Your task to perform on an android device: delete browsing data in the chrome app Image 0: 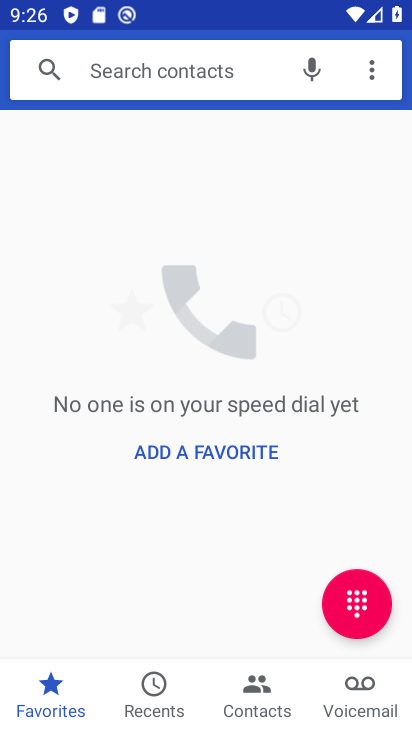
Step 0: press home button
Your task to perform on an android device: delete browsing data in the chrome app Image 1: 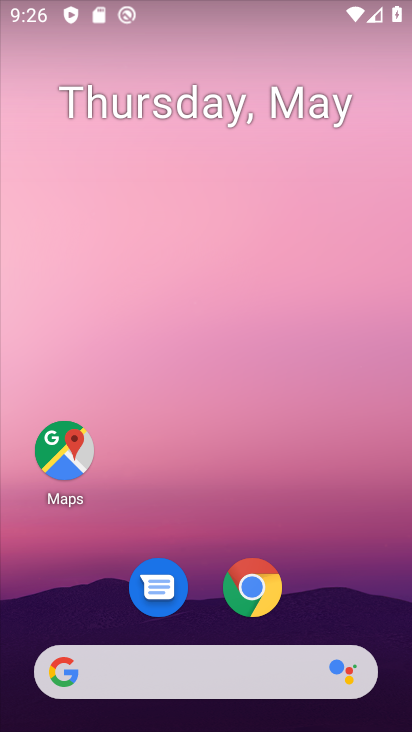
Step 1: click (261, 600)
Your task to perform on an android device: delete browsing data in the chrome app Image 2: 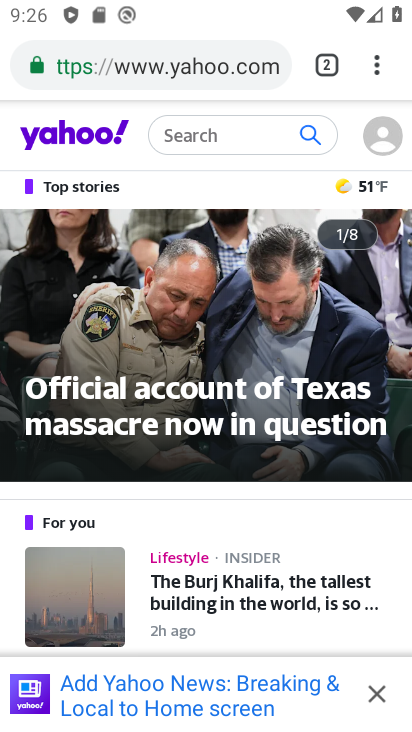
Step 2: click (382, 67)
Your task to perform on an android device: delete browsing data in the chrome app Image 3: 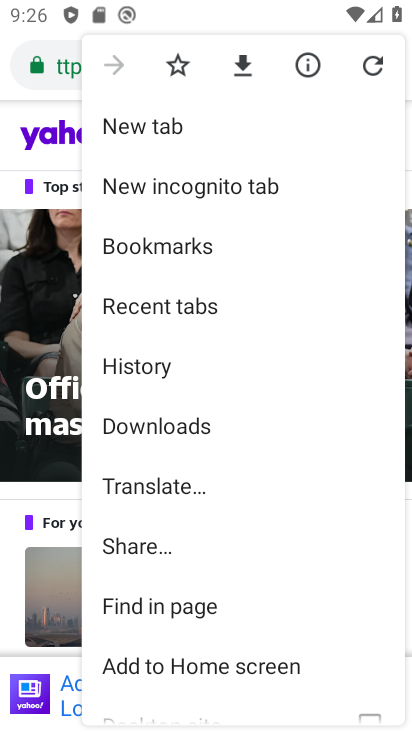
Step 3: drag from (239, 619) to (229, 337)
Your task to perform on an android device: delete browsing data in the chrome app Image 4: 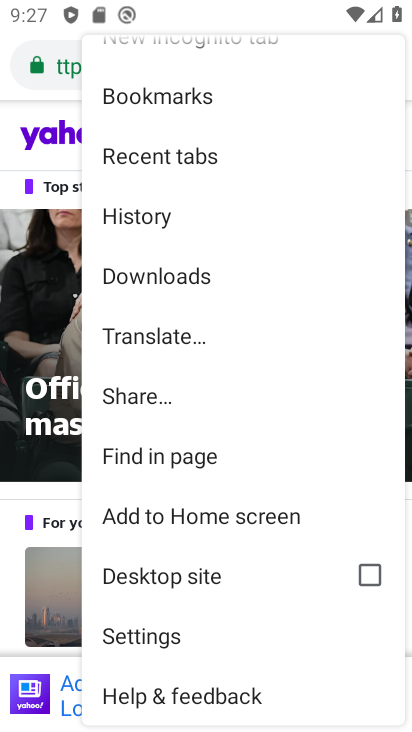
Step 4: click (139, 633)
Your task to perform on an android device: delete browsing data in the chrome app Image 5: 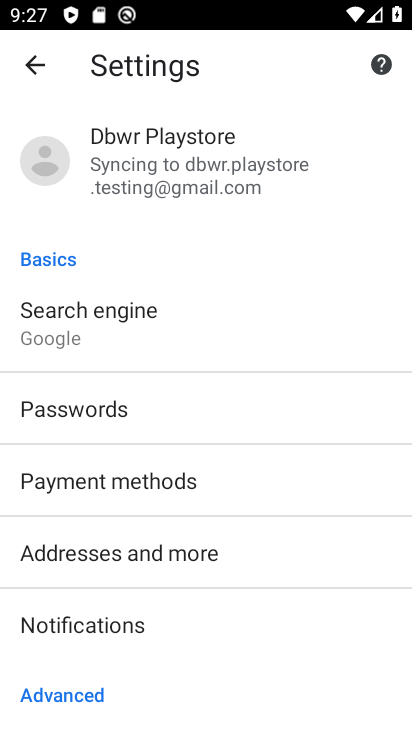
Step 5: click (26, 58)
Your task to perform on an android device: delete browsing data in the chrome app Image 6: 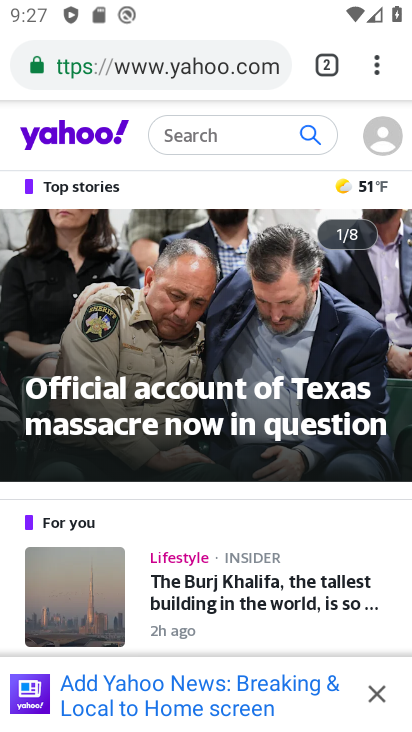
Step 6: click (384, 59)
Your task to perform on an android device: delete browsing data in the chrome app Image 7: 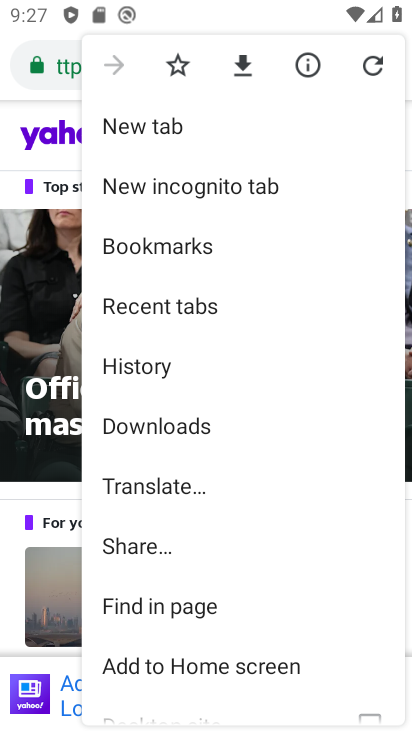
Step 7: click (154, 353)
Your task to perform on an android device: delete browsing data in the chrome app Image 8: 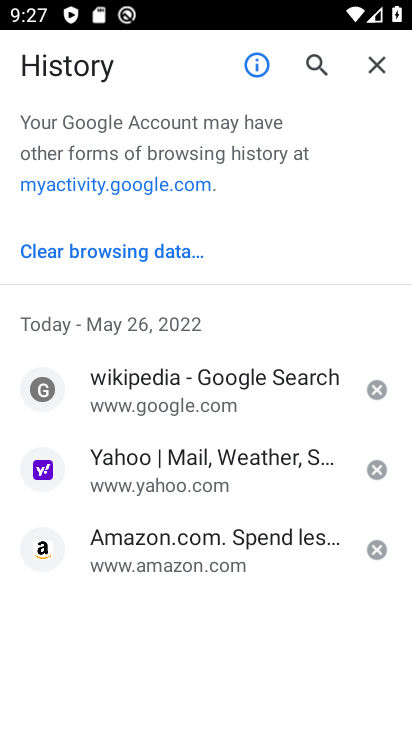
Step 8: click (155, 249)
Your task to perform on an android device: delete browsing data in the chrome app Image 9: 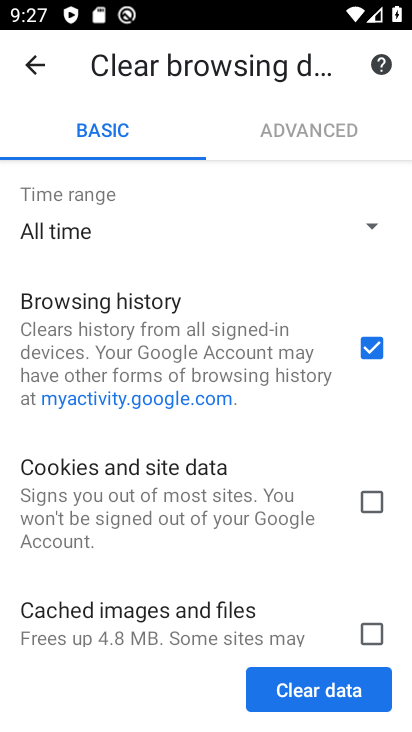
Step 9: click (315, 695)
Your task to perform on an android device: delete browsing data in the chrome app Image 10: 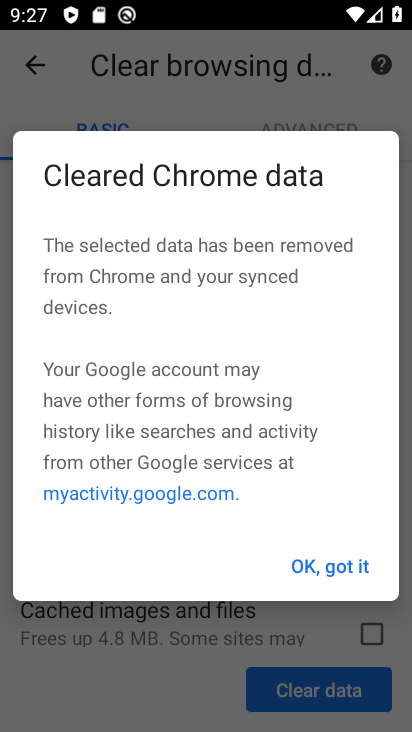
Step 10: click (327, 572)
Your task to perform on an android device: delete browsing data in the chrome app Image 11: 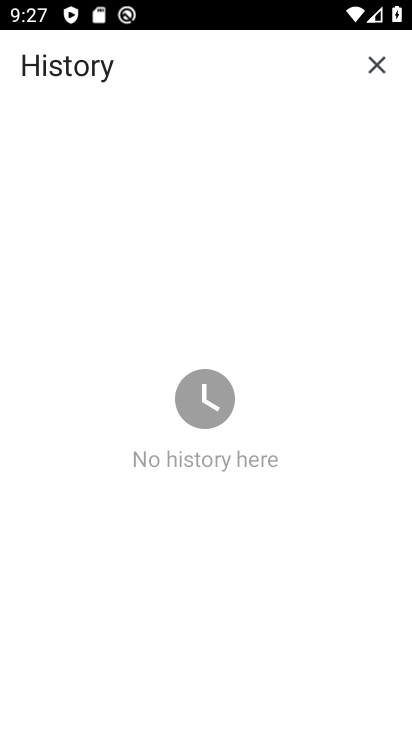
Step 11: task complete